Your task to perform on an android device: create a new album in the google photos Image 0: 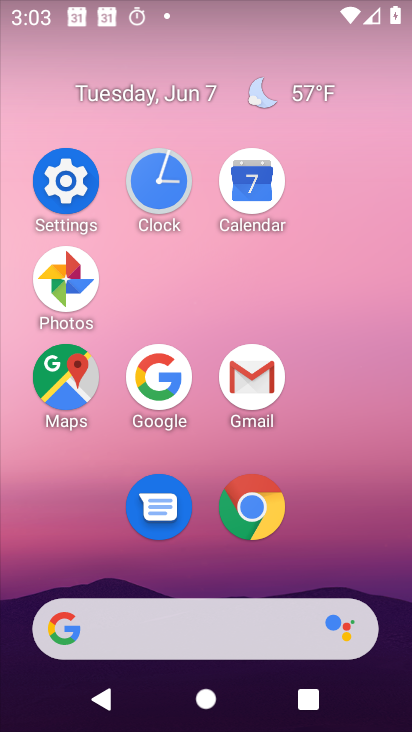
Step 0: click (65, 281)
Your task to perform on an android device: create a new album in the google photos Image 1: 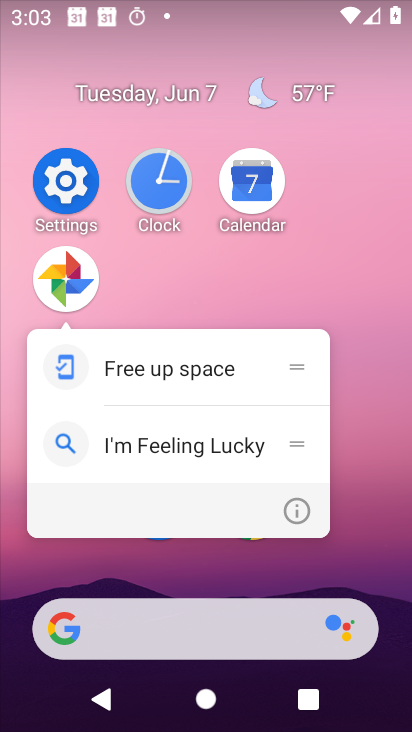
Step 1: click (70, 271)
Your task to perform on an android device: create a new album in the google photos Image 2: 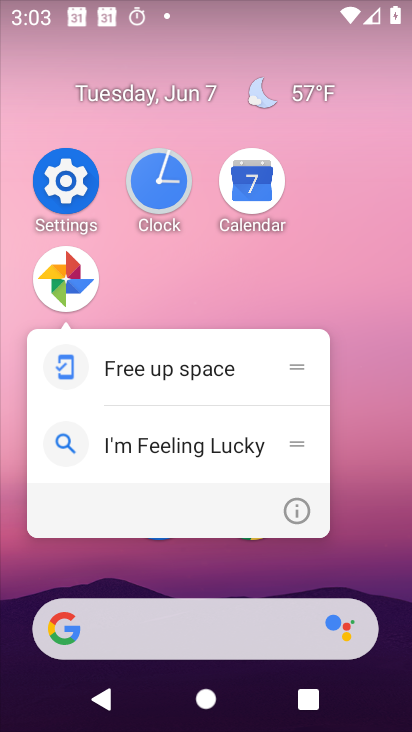
Step 2: click (71, 282)
Your task to perform on an android device: create a new album in the google photos Image 3: 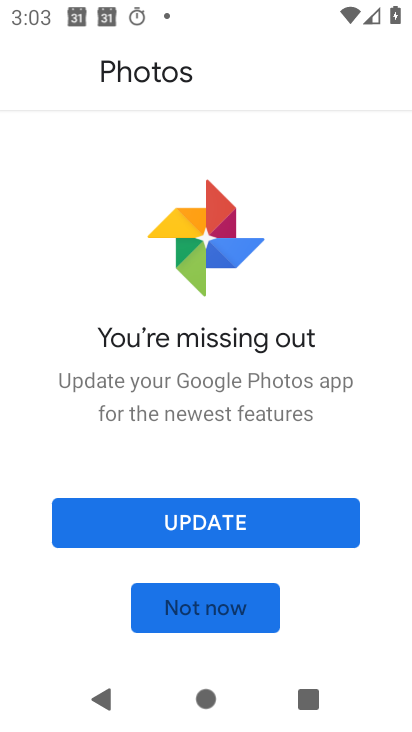
Step 3: click (239, 512)
Your task to perform on an android device: create a new album in the google photos Image 4: 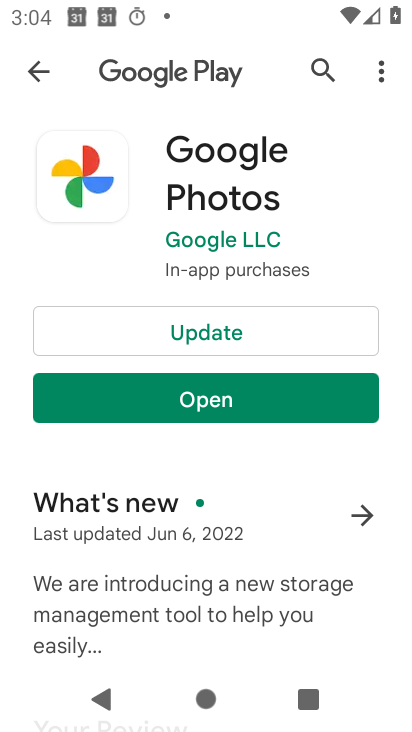
Step 4: click (247, 404)
Your task to perform on an android device: create a new album in the google photos Image 5: 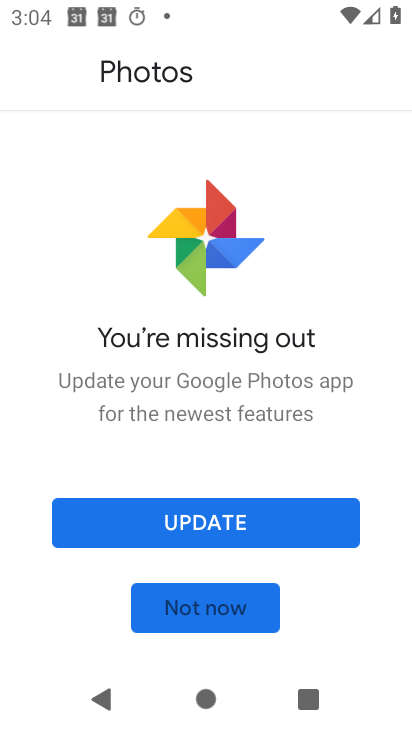
Step 5: click (249, 612)
Your task to perform on an android device: create a new album in the google photos Image 6: 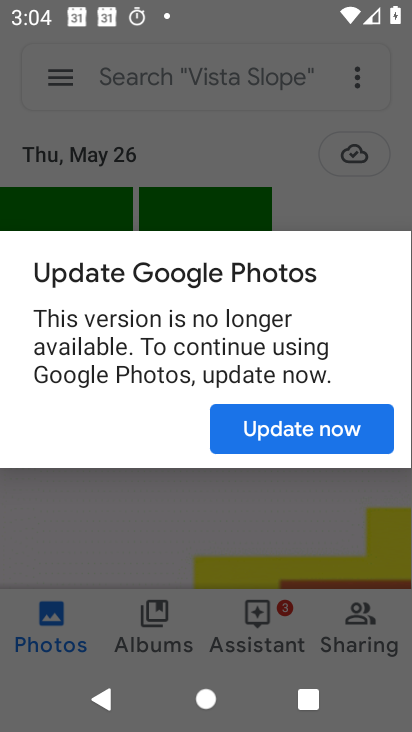
Step 6: click (324, 436)
Your task to perform on an android device: create a new album in the google photos Image 7: 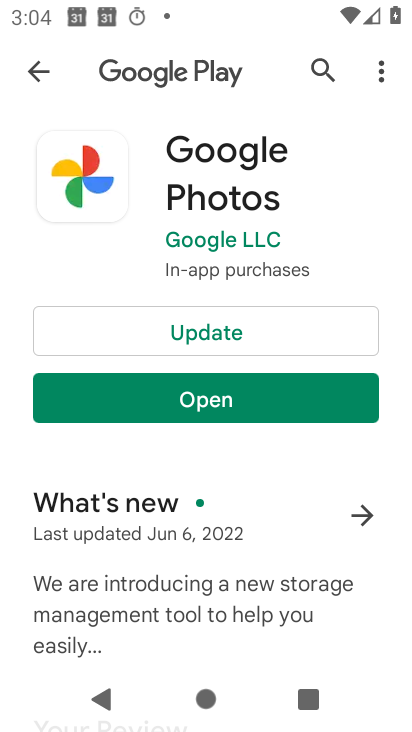
Step 7: click (251, 409)
Your task to perform on an android device: create a new album in the google photos Image 8: 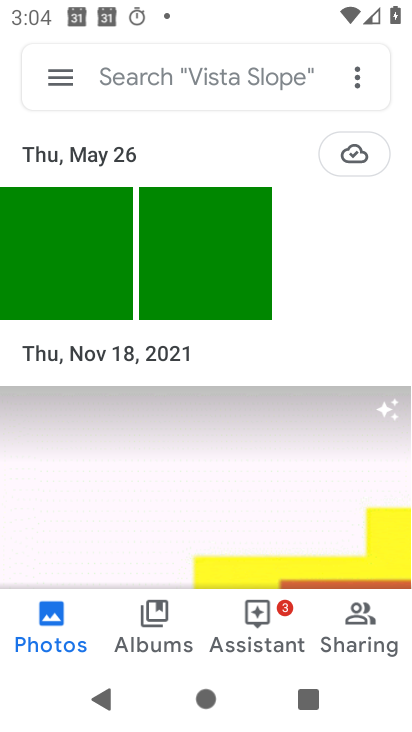
Step 8: click (56, 86)
Your task to perform on an android device: create a new album in the google photos Image 9: 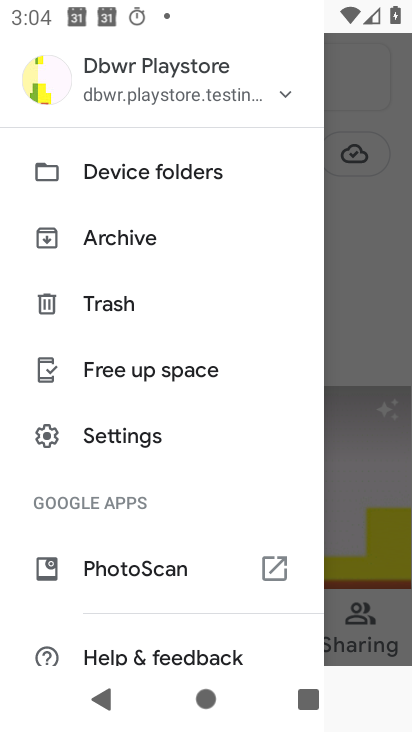
Step 9: click (391, 361)
Your task to perform on an android device: create a new album in the google photos Image 10: 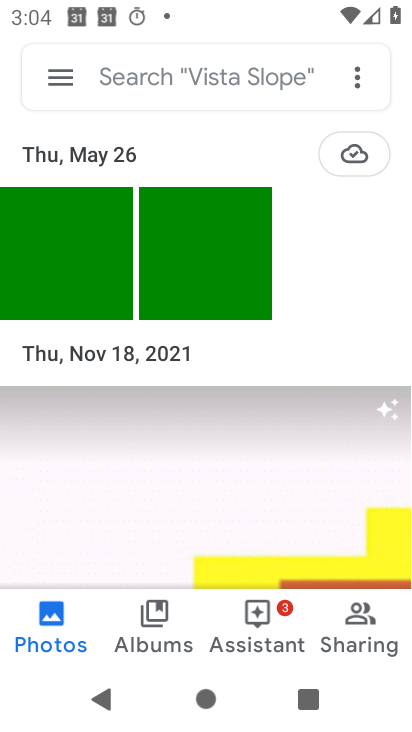
Step 10: click (176, 612)
Your task to perform on an android device: create a new album in the google photos Image 11: 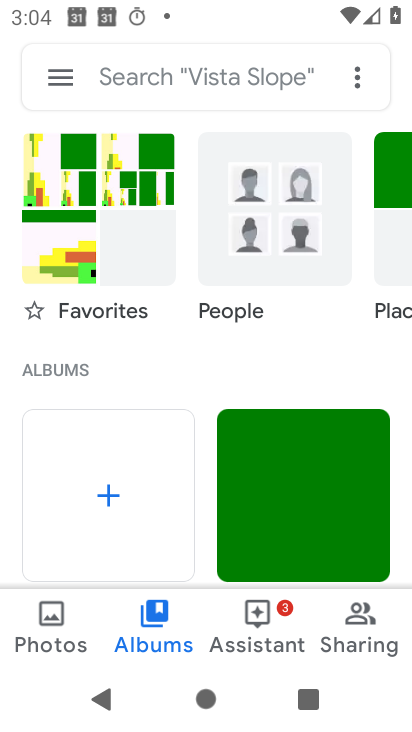
Step 11: click (110, 466)
Your task to perform on an android device: create a new album in the google photos Image 12: 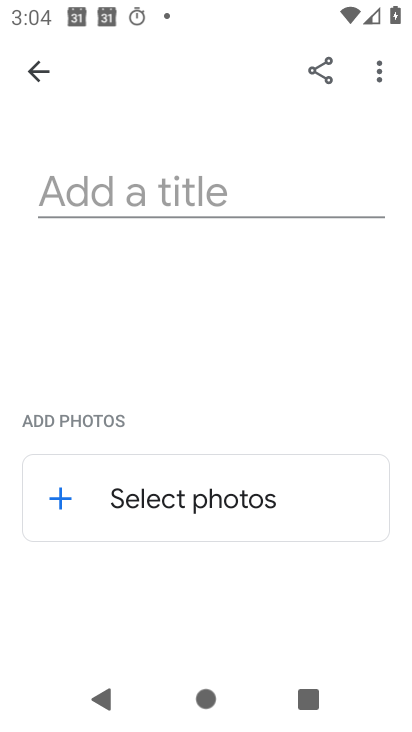
Step 12: click (196, 172)
Your task to perform on an android device: create a new album in the google photos Image 13: 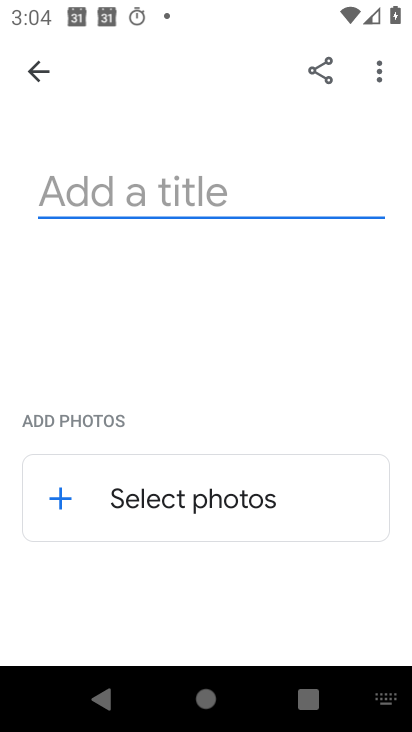
Step 13: type "jjkk"
Your task to perform on an android device: create a new album in the google photos Image 14: 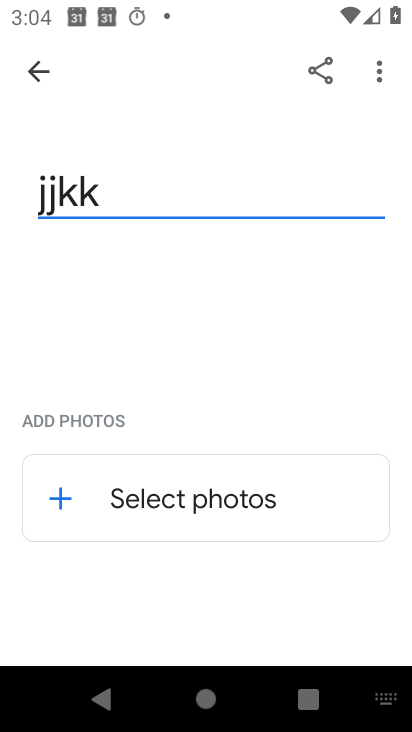
Step 14: click (193, 486)
Your task to perform on an android device: create a new album in the google photos Image 15: 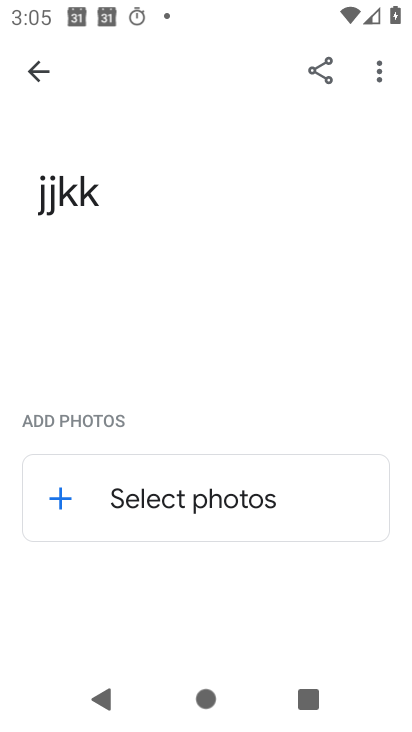
Step 15: click (193, 486)
Your task to perform on an android device: create a new album in the google photos Image 16: 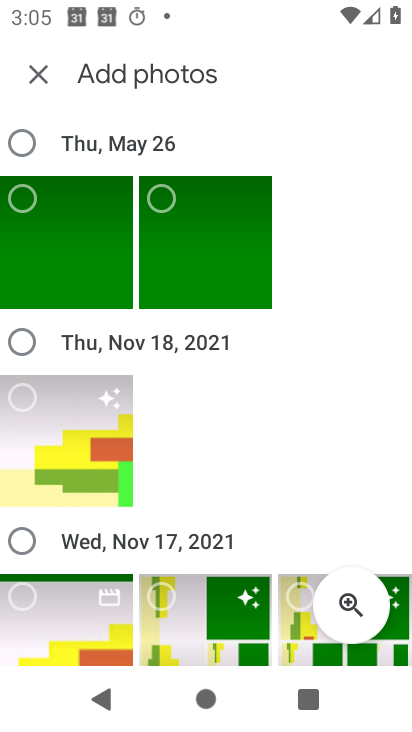
Step 16: click (64, 180)
Your task to perform on an android device: create a new album in the google photos Image 17: 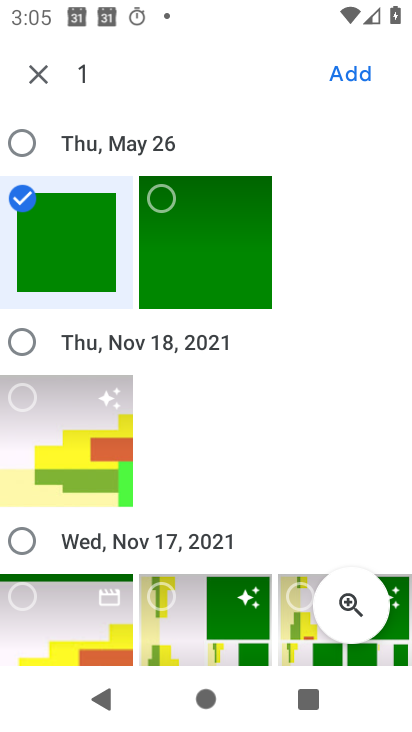
Step 17: click (186, 225)
Your task to perform on an android device: create a new album in the google photos Image 18: 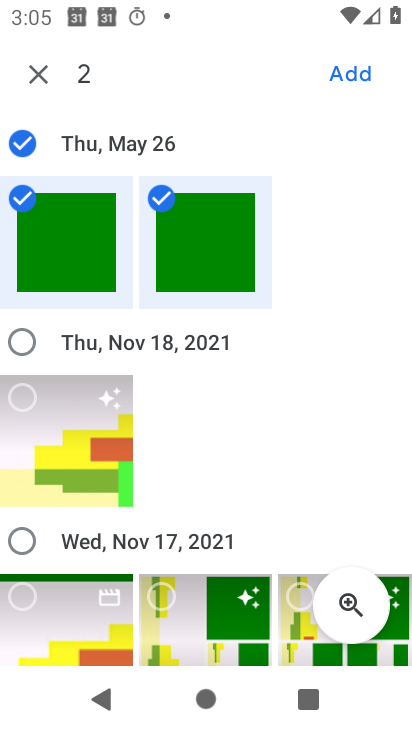
Step 18: click (350, 78)
Your task to perform on an android device: create a new album in the google photos Image 19: 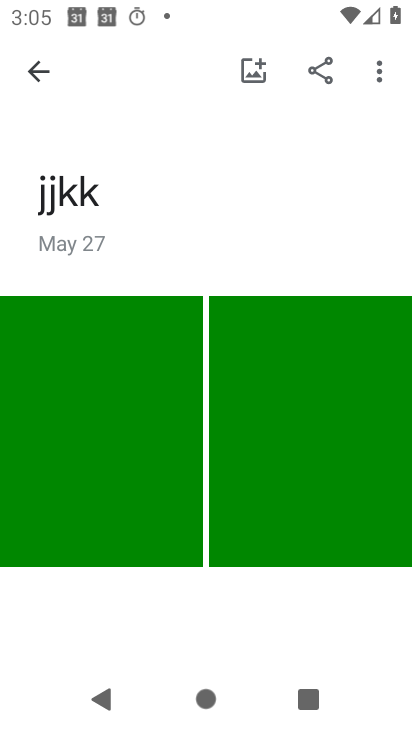
Step 19: task complete